Your task to perform on an android device: Open Chrome and go to the settings page Image 0: 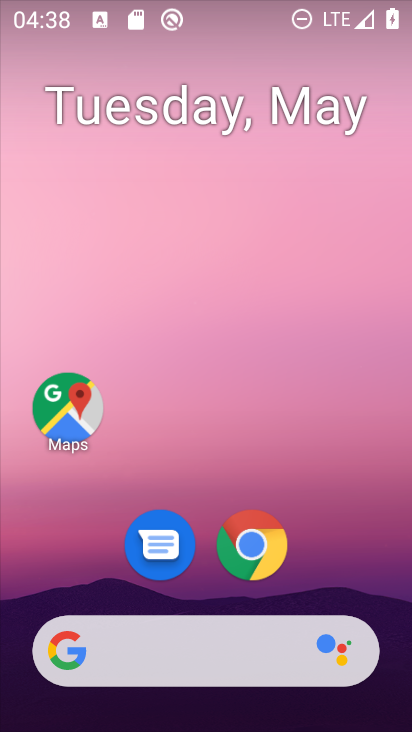
Step 0: click (254, 546)
Your task to perform on an android device: Open Chrome and go to the settings page Image 1: 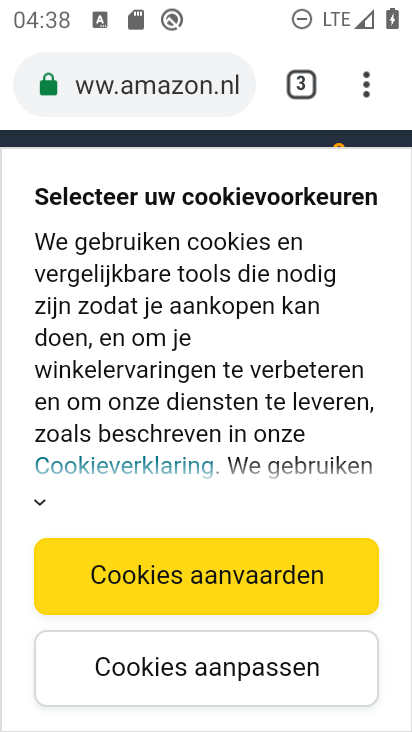
Step 1: click (366, 90)
Your task to perform on an android device: Open Chrome and go to the settings page Image 2: 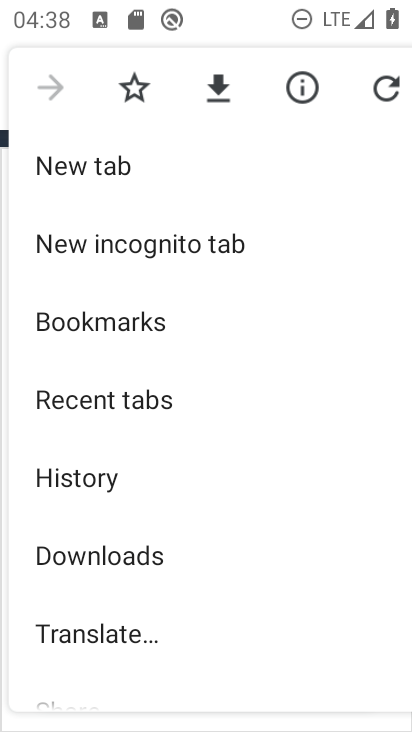
Step 2: drag from (212, 641) to (212, 281)
Your task to perform on an android device: Open Chrome and go to the settings page Image 3: 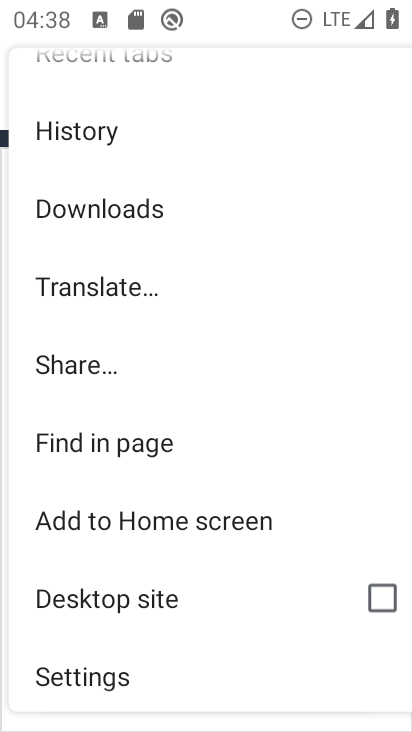
Step 3: click (103, 666)
Your task to perform on an android device: Open Chrome and go to the settings page Image 4: 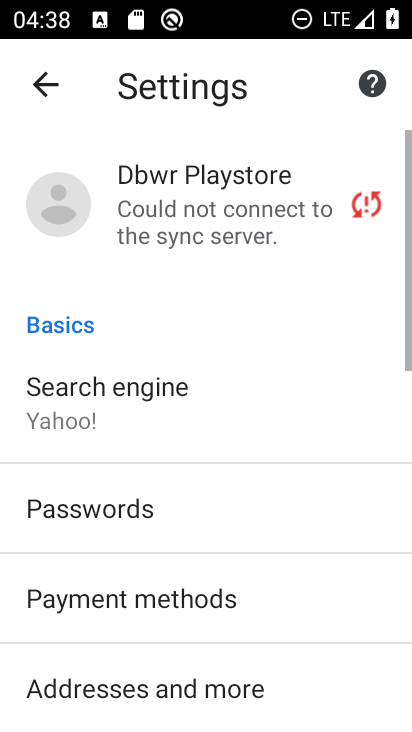
Step 4: task complete